Your task to perform on an android device: Open calendar and show me the second week of next month Image 0: 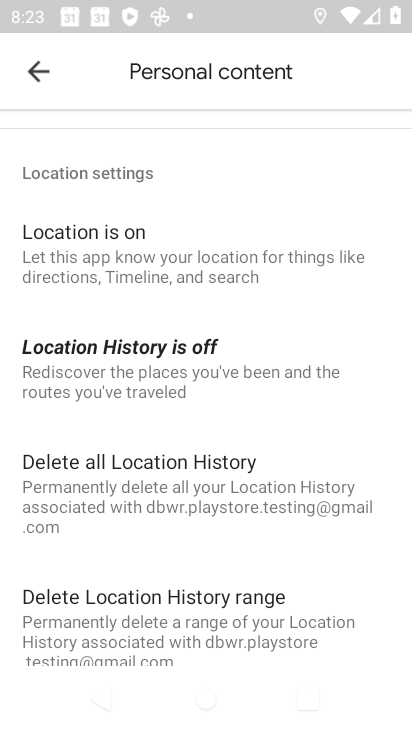
Step 0: press home button
Your task to perform on an android device: Open calendar and show me the second week of next month Image 1: 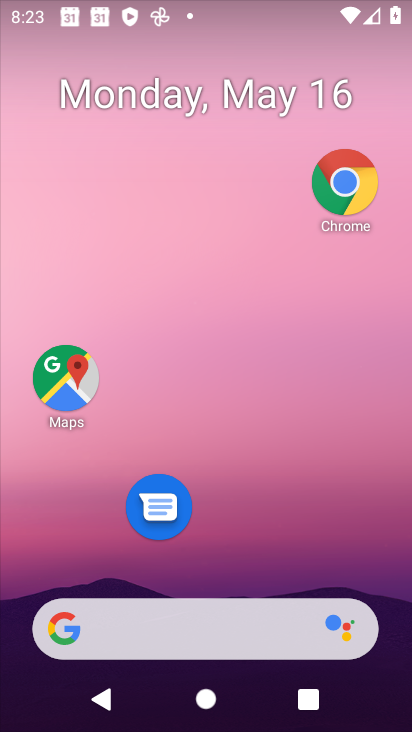
Step 1: drag from (216, 544) to (254, 85)
Your task to perform on an android device: Open calendar and show me the second week of next month Image 2: 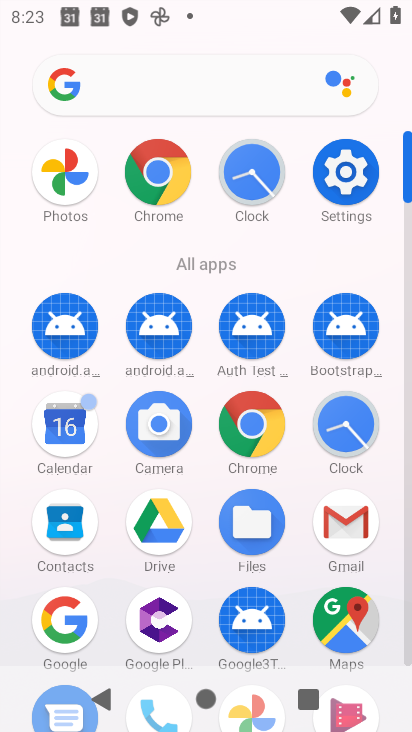
Step 2: click (47, 420)
Your task to perform on an android device: Open calendar and show me the second week of next month Image 3: 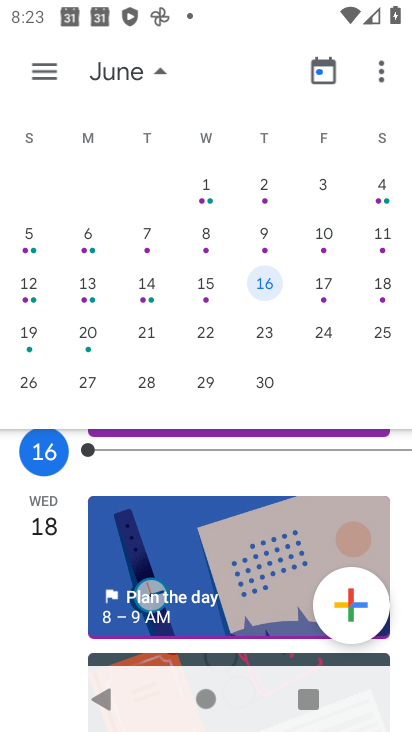
Step 3: click (329, 232)
Your task to perform on an android device: Open calendar and show me the second week of next month Image 4: 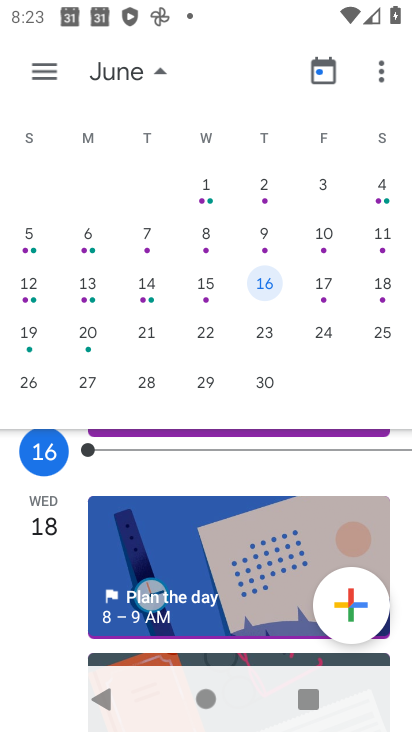
Step 4: click (324, 237)
Your task to perform on an android device: Open calendar and show me the second week of next month Image 5: 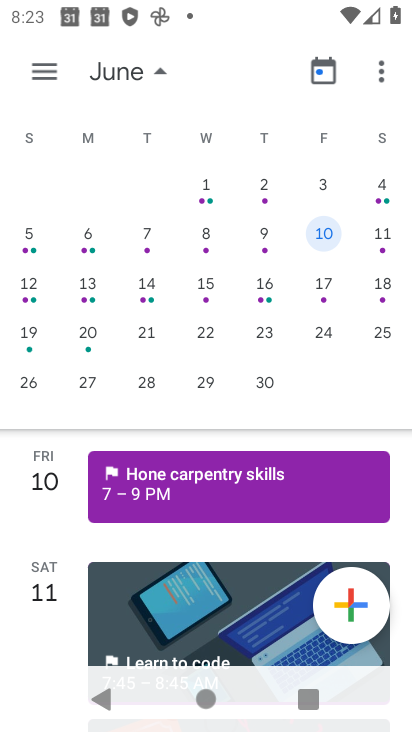
Step 5: click (324, 237)
Your task to perform on an android device: Open calendar and show me the second week of next month Image 6: 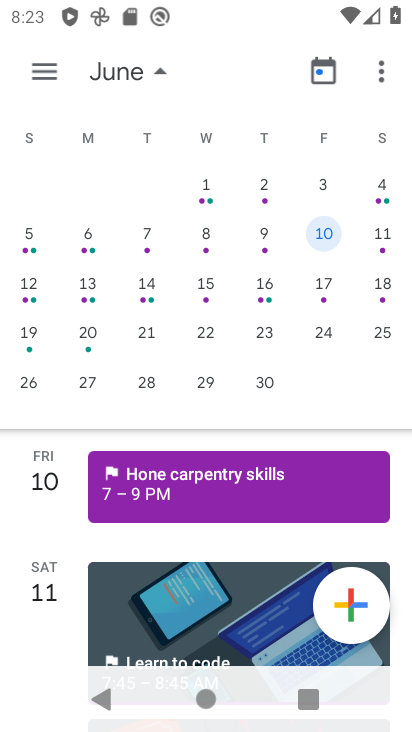
Step 6: task complete